Your task to perform on an android device: turn off sleep mode Image 0: 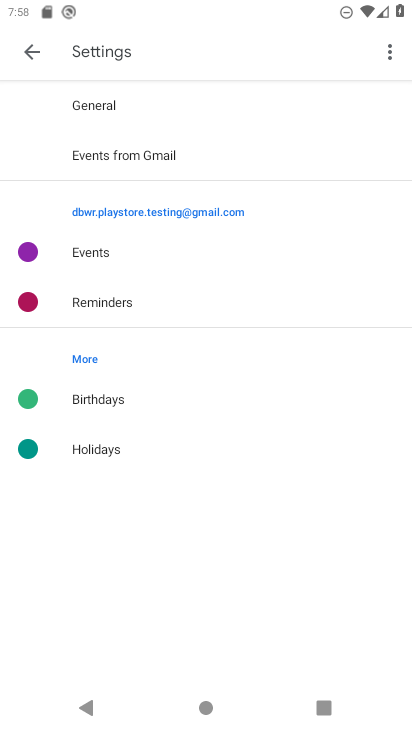
Step 0: press back button
Your task to perform on an android device: turn off sleep mode Image 1: 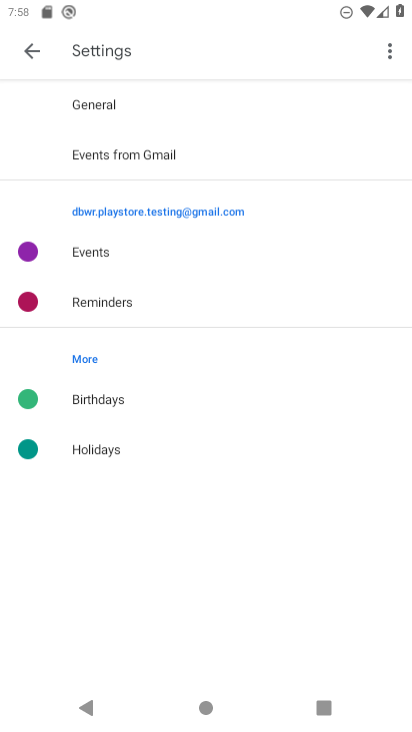
Step 1: press home button
Your task to perform on an android device: turn off sleep mode Image 2: 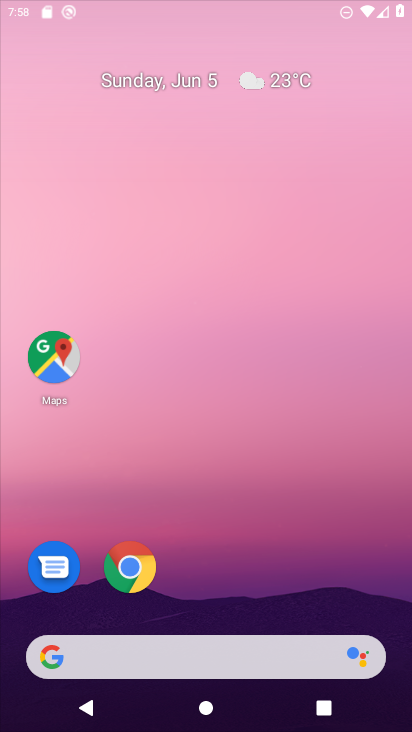
Step 2: drag from (379, 674) to (353, 294)
Your task to perform on an android device: turn off sleep mode Image 3: 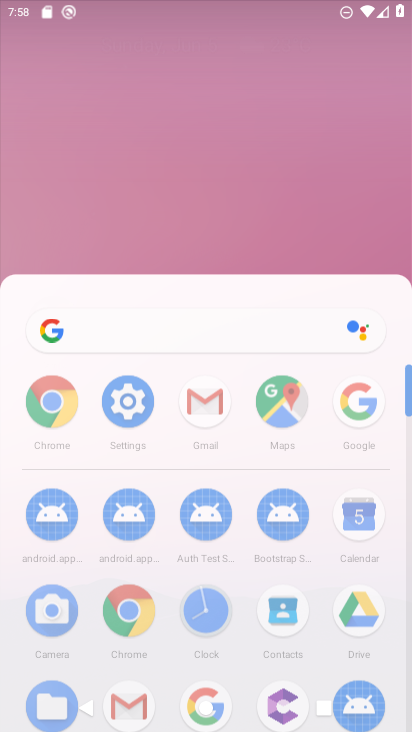
Step 3: click (237, 17)
Your task to perform on an android device: turn off sleep mode Image 4: 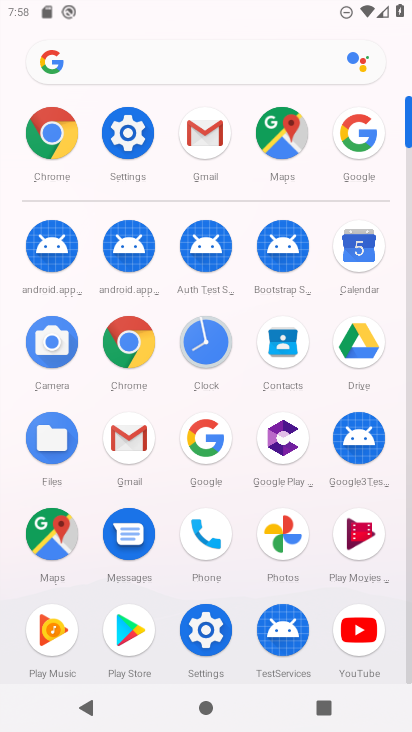
Step 4: click (134, 131)
Your task to perform on an android device: turn off sleep mode Image 5: 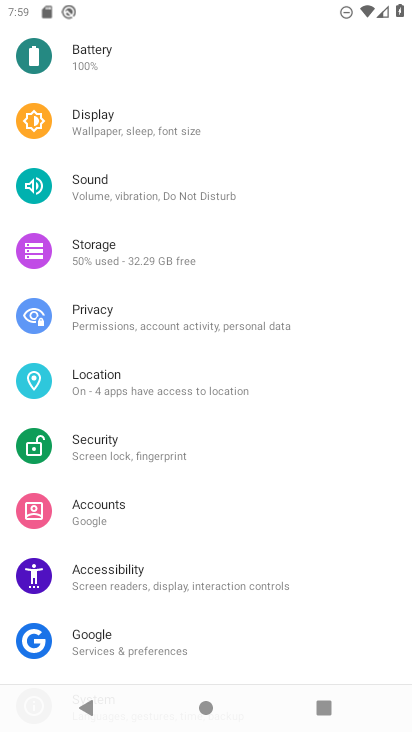
Step 5: task complete